Your task to perform on an android device: Go to network settings Image 0: 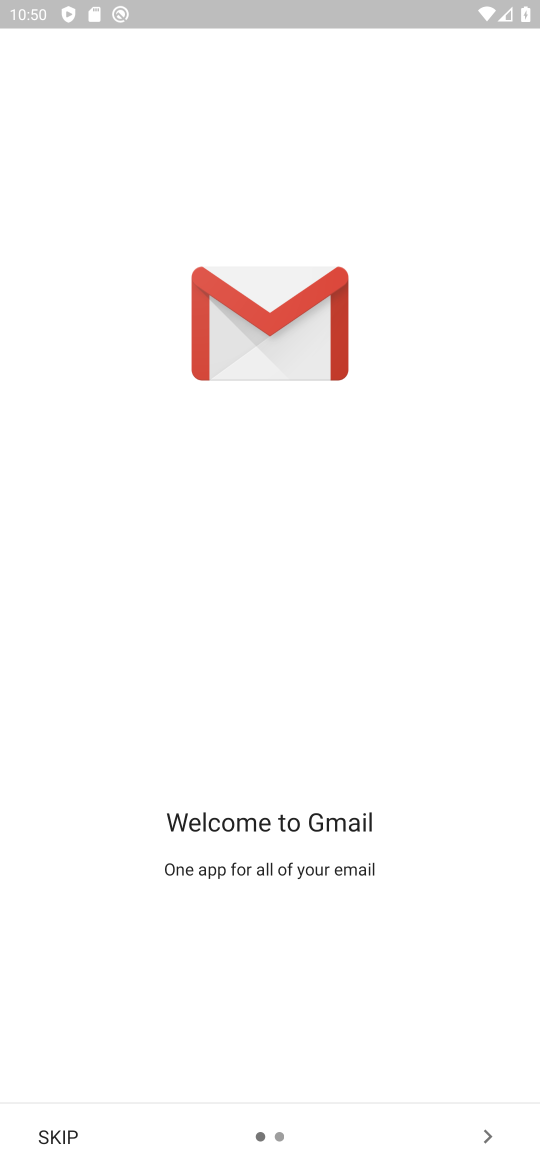
Step 0: task complete